Your task to perform on an android device: turn on airplane mode Image 0: 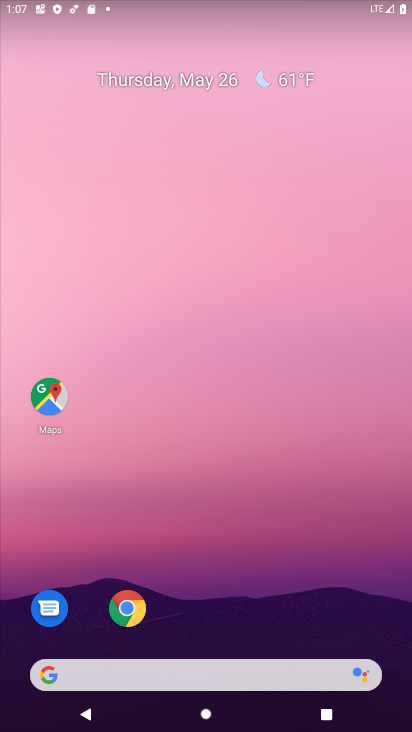
Step 0: drag from (369, 614) to (339, 25)
Your task to perform on an android device: turn on airplane mode Image 1: 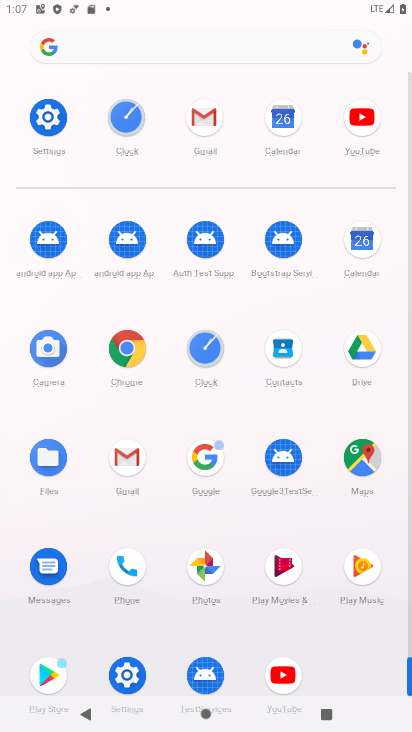
Step 1: click (126, 674)
Your task to perform on an android device: turn on airplane mode Image 2: 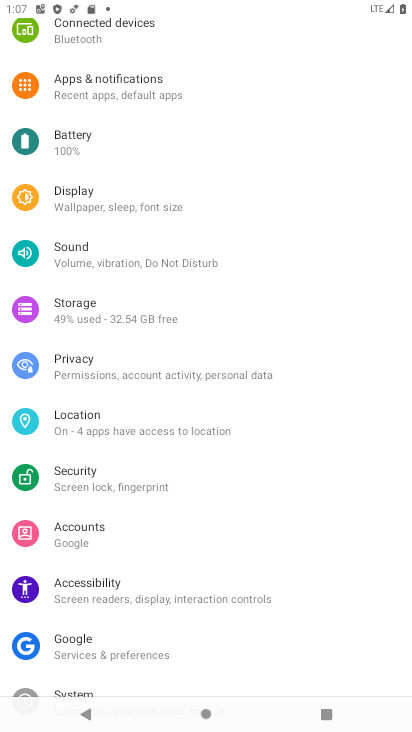
Step 2: drag from (242, 145) to (271, 693)
Your task to perform on an android device: turn on airplane mode Image 3: 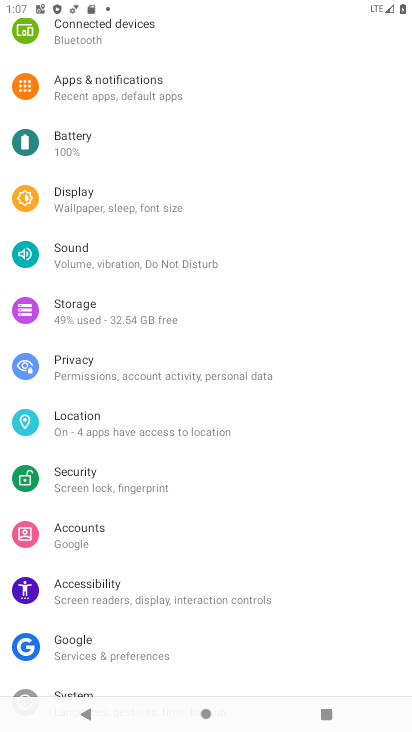
Step 3: drag from (293, 78) to (280, 397)
Your task to perform on an android device: turn on airplane mode Image 4: 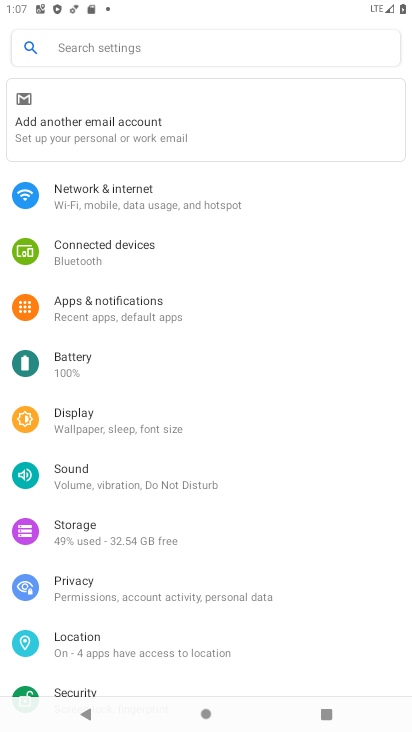
Step 4: click (100, 186)
Your task to perform on an android device: turn on airplane mode Image 5: 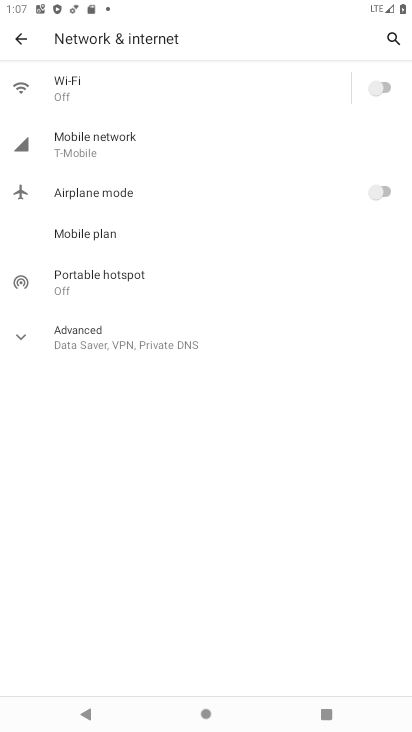
Step 5: click (390, 189)
Your task to perform on an android device: turn on airplane mode Image 6: 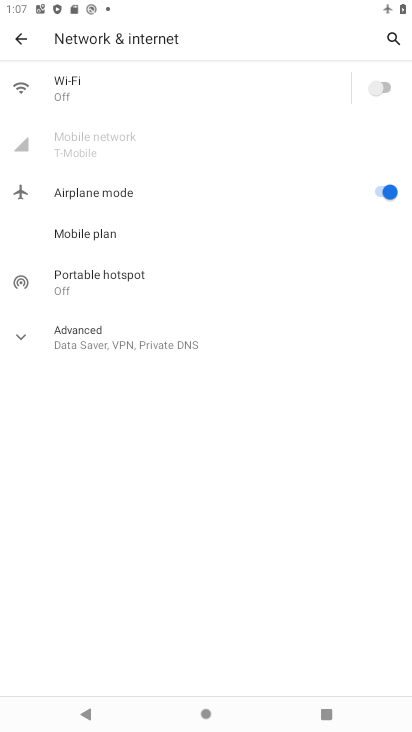
Step 6: task complete